Your task to perform on an android device: clear history in the chrome app Image 0: 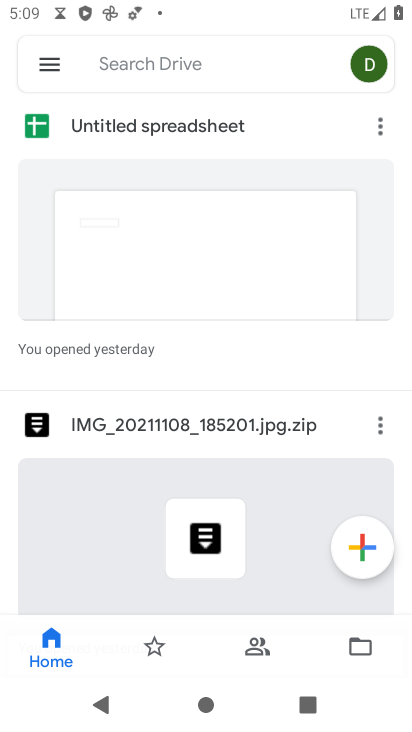
Step 0: press back button
Your task to perform on an android device: clear history in the chrome app Image 1: 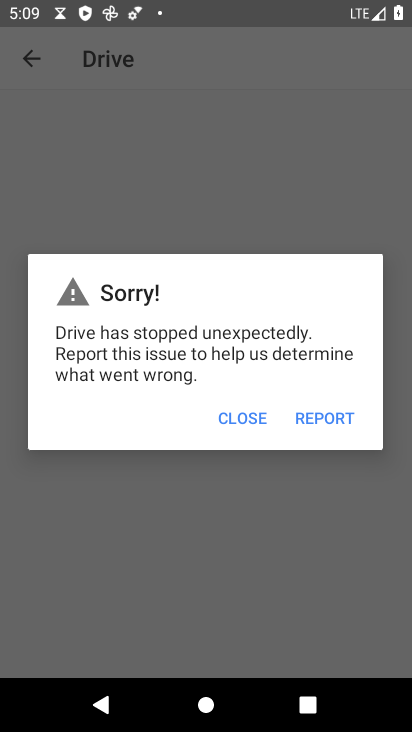
Step 1: press home button
Your task to perform on an android device: clear history in the chrome app Image 2: 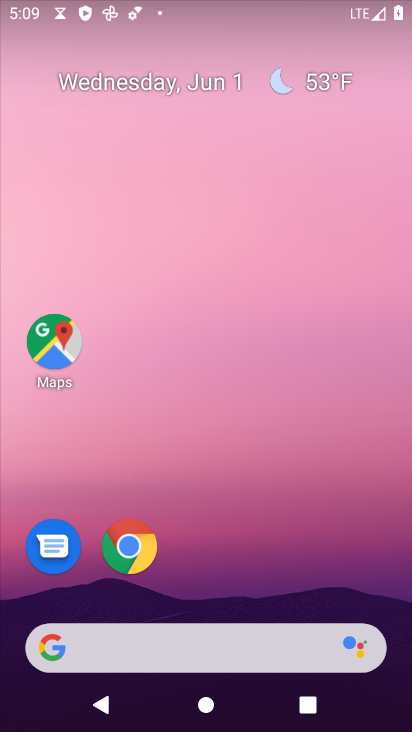
Step 2: drag from (310, 580) to (215, 0)
Your task to perform on an android device: clear history in the chrome app Image 3: 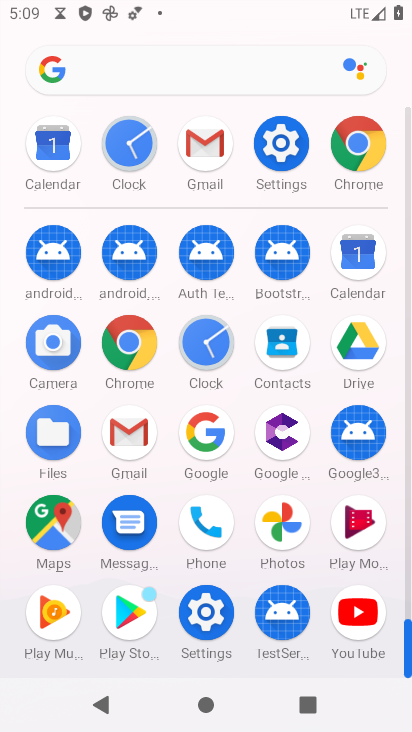
Step 3: drag from (10, 564) to (8, 187)
Your task to perform on an android device: clear history in the chrome app Image 4: 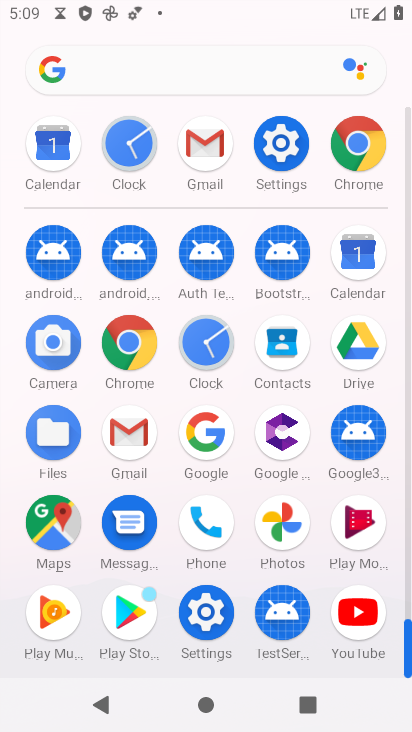
Step 4: click (128, 339)
Your task to perform on an android device: clear history in the chrome app Image 5: 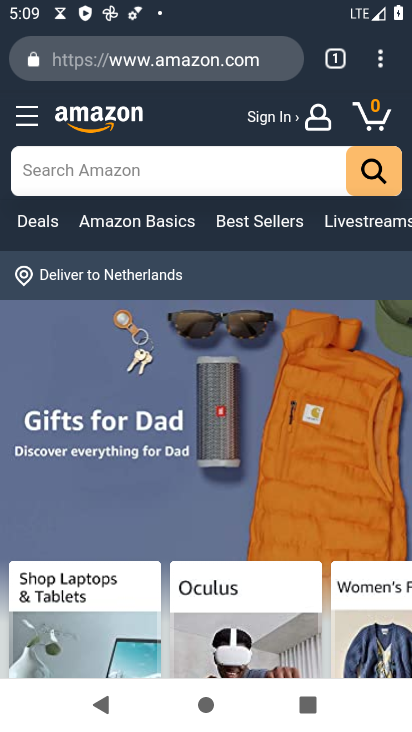
Step 5: drag from (377, 54) to (203, 574)
Your task to perform on an android device: clear history in the chrome app Image 6: 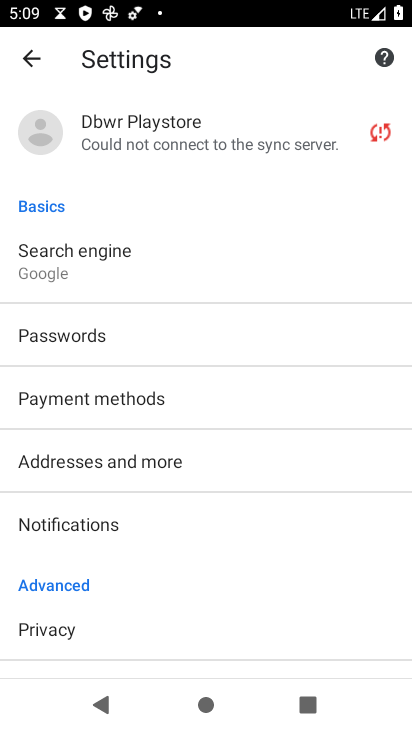
Step 6: drag from (157, 495) to (188, 167)
Your task to perform on an android device: clear history in the chrome app Image 7: 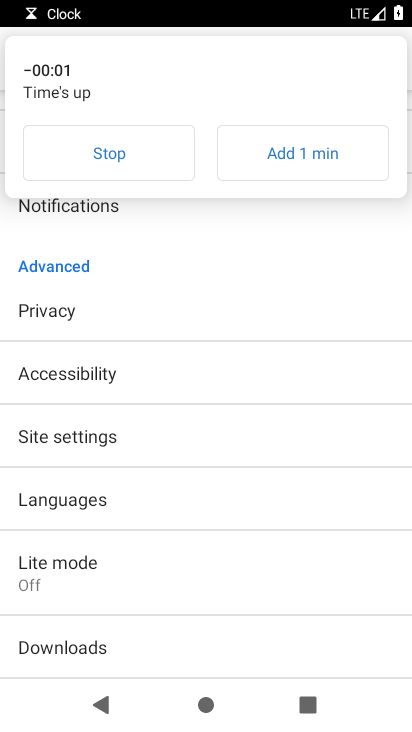
Step 7: drag from (205, 470) to (218, 238)
Your task to perform on an android device: clear history in the chrome app Image 8: 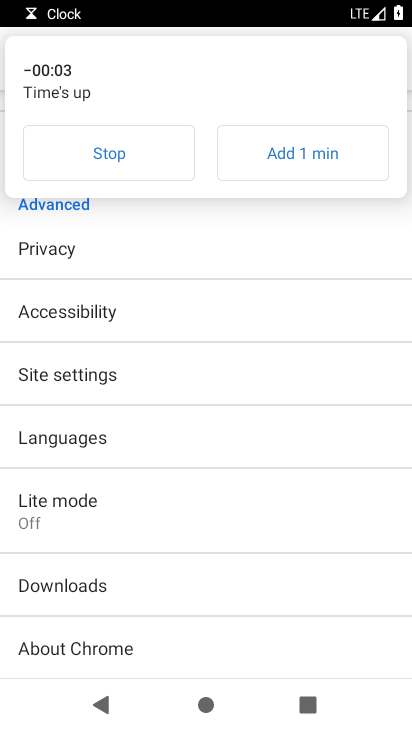
Step 8: click (109, 140)
Your task to perform on an android device: clear history in the chrome app Image 9: 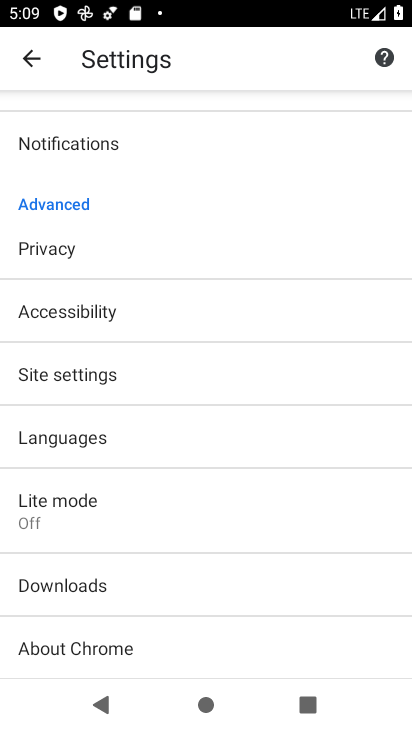
Step 9: click (83, 246)
Your task to perform on an android device: clear history in the chrome app Image 10: 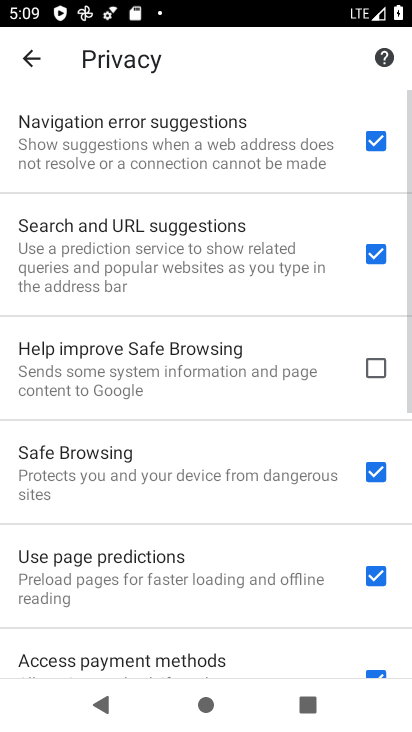
Step 10: drag from (175, 594) to (210, 172)
Your task to perform on an android device: clear history in the chrome app Image 11: 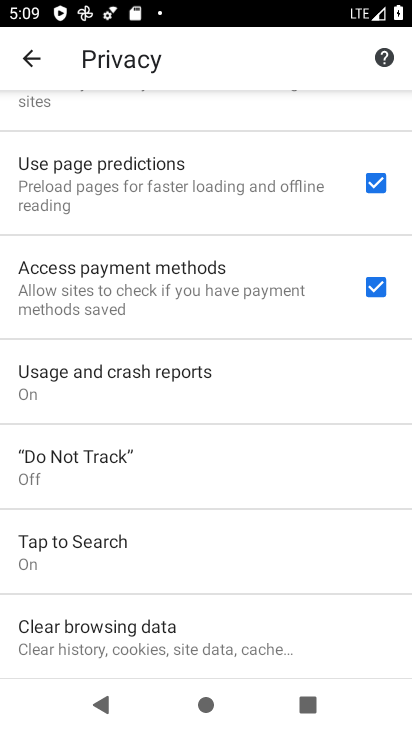
Step 11: click (174, 649)
Your task to perform on an android device: clear history in the chrome app Image 12: 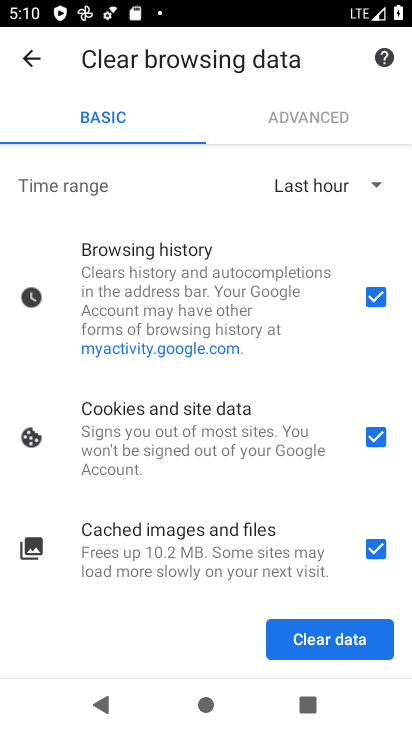
Step 12: click (381, 551)
Your task to perform on an android device: clear history in the chrome app Image 13: 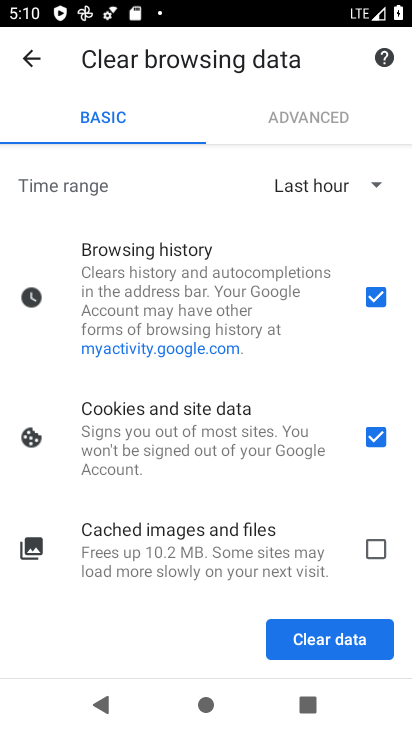
Step 13: click (371, 432)
Your task to perform on an android device: clear history in the chrome app Image 14: 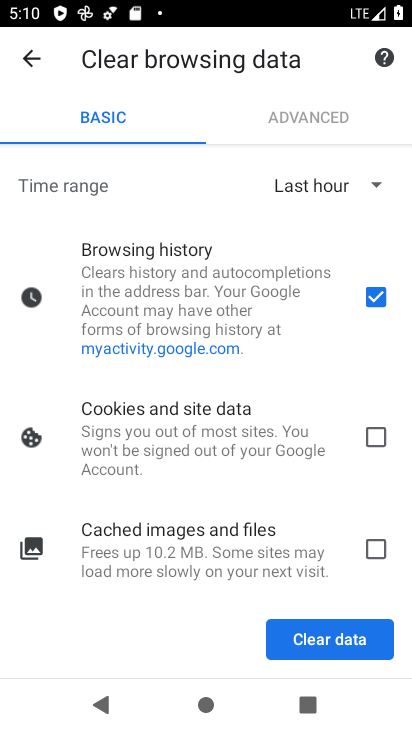
Step 14: click (332, 638)
Your task to perform on an android device: clear history in the chrome app Image 15: 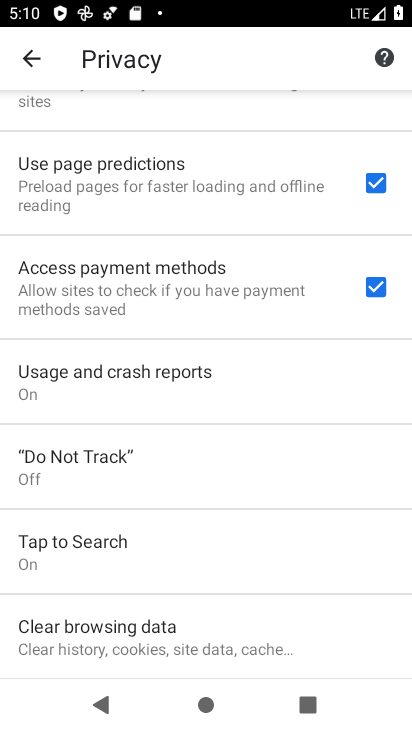
Step 15: click (204, 628)
Your task to perform on an android device: clear history in the chrome app Image 16: 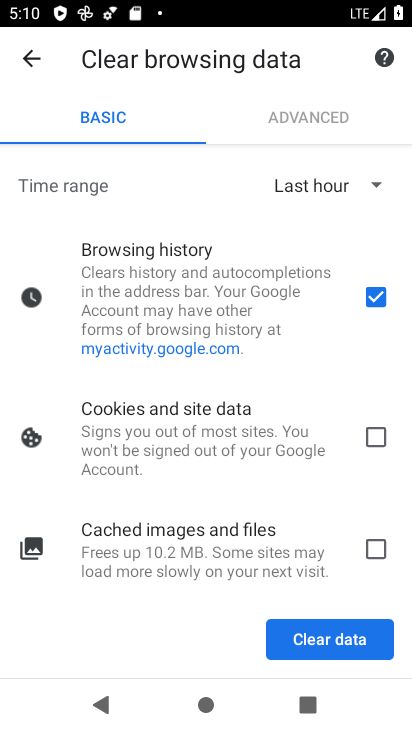
Step 16: click (313, 629)
Your task to perform on an android device: clear history in the chrome app Image 17: 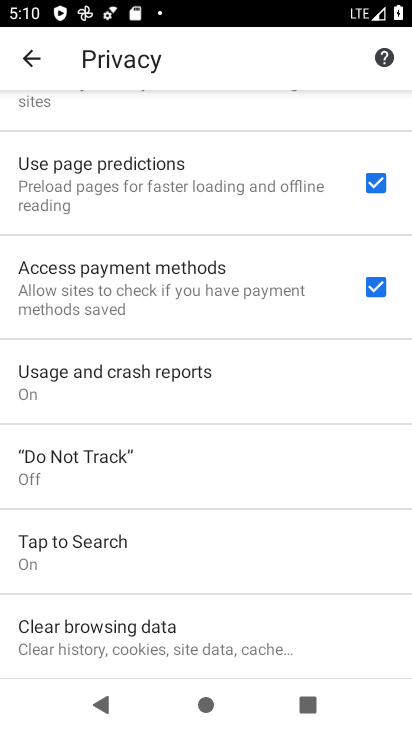
Step 17: task complete